Your task to perform on an android device: Search for vegetarian restaurants on Maps Image 0: 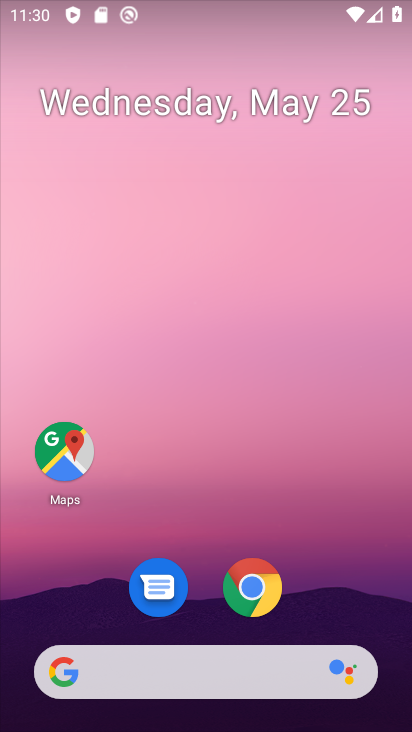
Step 0: press home button
Your task to perform on an android device: Search for vegetarian restaurants on Maps Image 1: 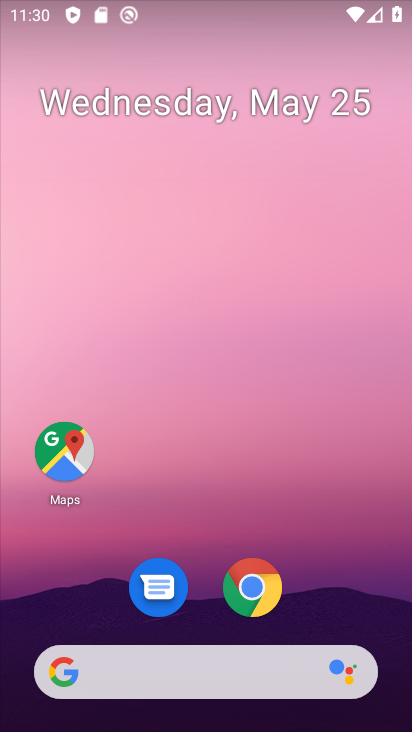
Step 1: drag from (325, 697) to (275, 121)
Your task to perform on an android device: Search for vegetarian restaurants on Maps Image 2: 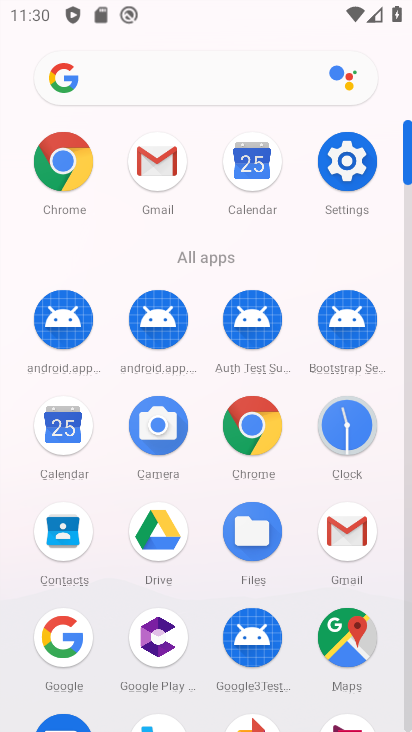
Step 2: click (346, 619)
Your task to perform on an android device: Search for vegetarian restaurants on Maps Image 3: 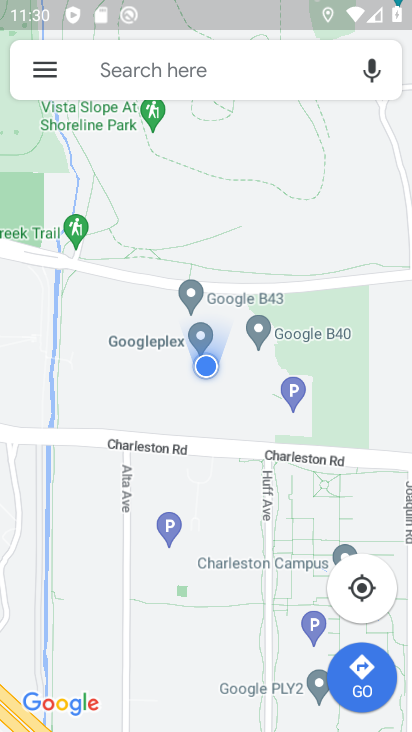
Step 3: click (168, 71)
Your task to perform on an android device: Search for vegetarian restaurants on Maps Image 4: 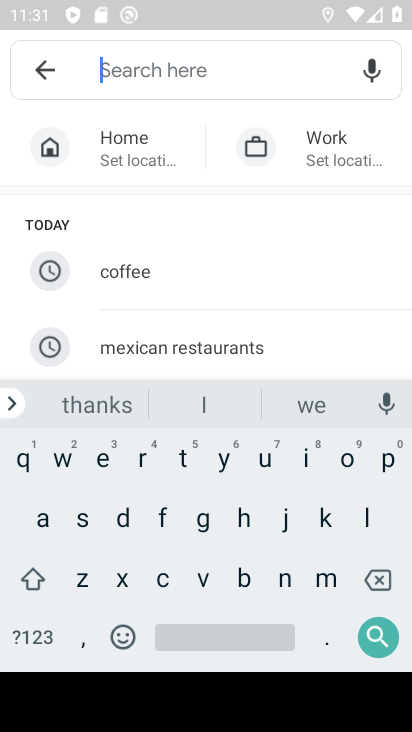
Step 4: click (193, 581)
Your task to perform on an android device: Search for vegetarian restaurants on Maps Image 5: 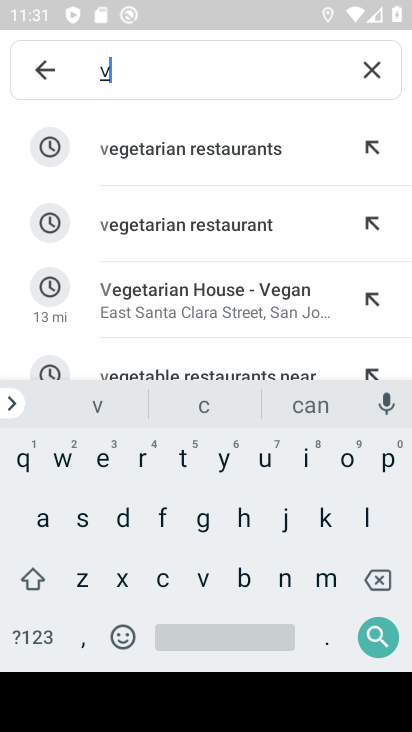
Step 5: click (229, 145)
Your task to perform on an android device: Search for vegetarian restaurants on Maps Image 6: 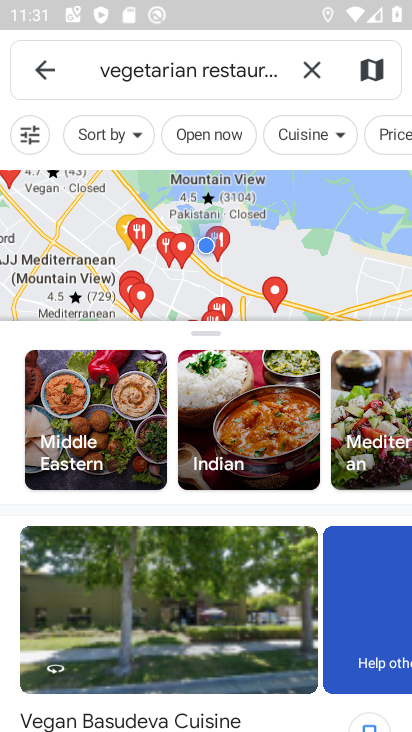
Step 6: task complete